Your task to perform on an android device: Open Google Chrome and open the bookmarks view Image 0: 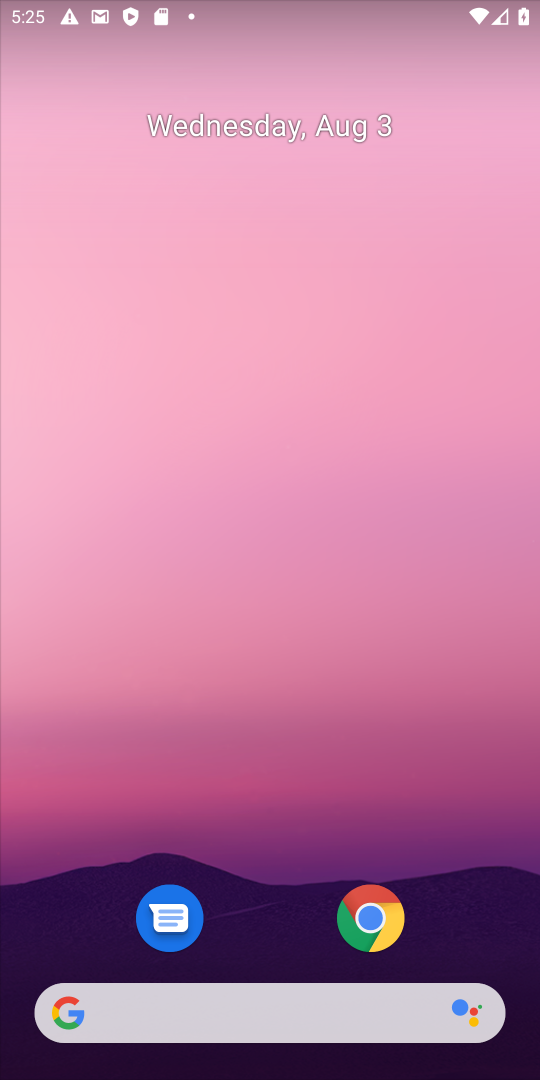
Step 0: click (367, 920)
Your task to perform on an android device: Open Google Chrome and open the bookmarks view Image 1: 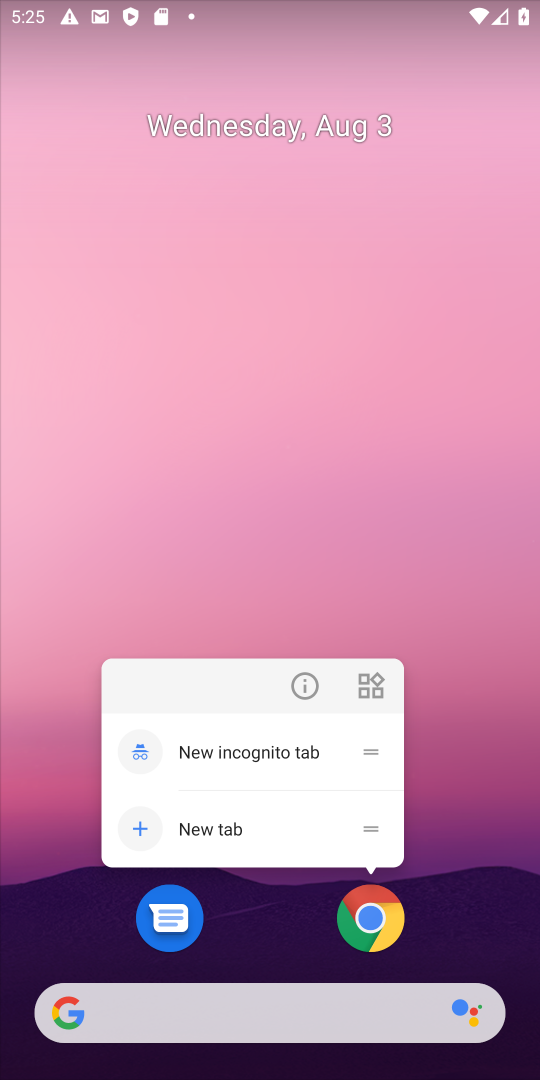
Step 1: click (367, 922)
Your task to perform on an android device: Open Google Chrome and open the bookmarks view Image 2: 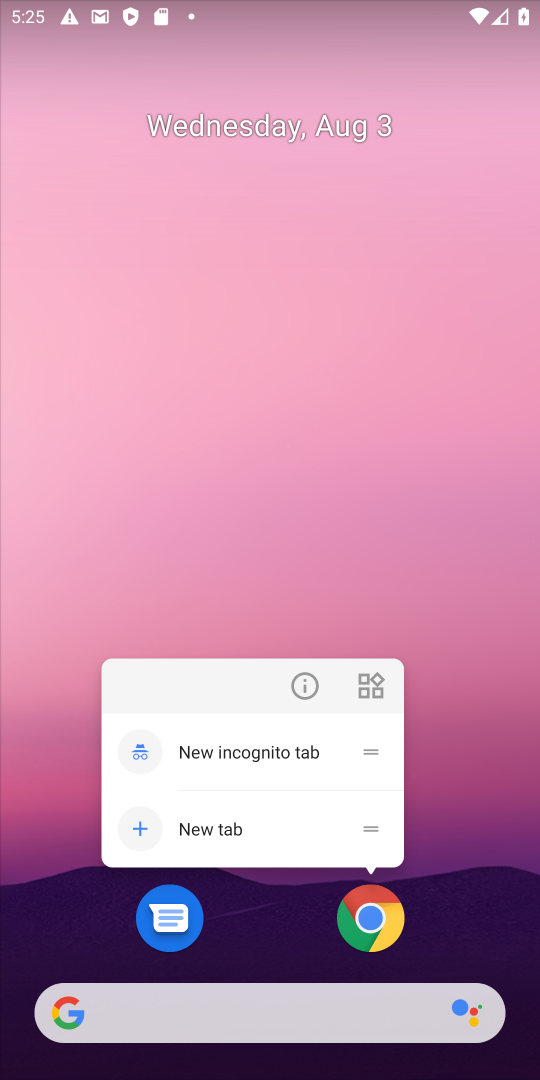
Step 2: click (367, 922)
Your task to perform on an android device: Open Google Chrome and open the bookmarks view Image 3: 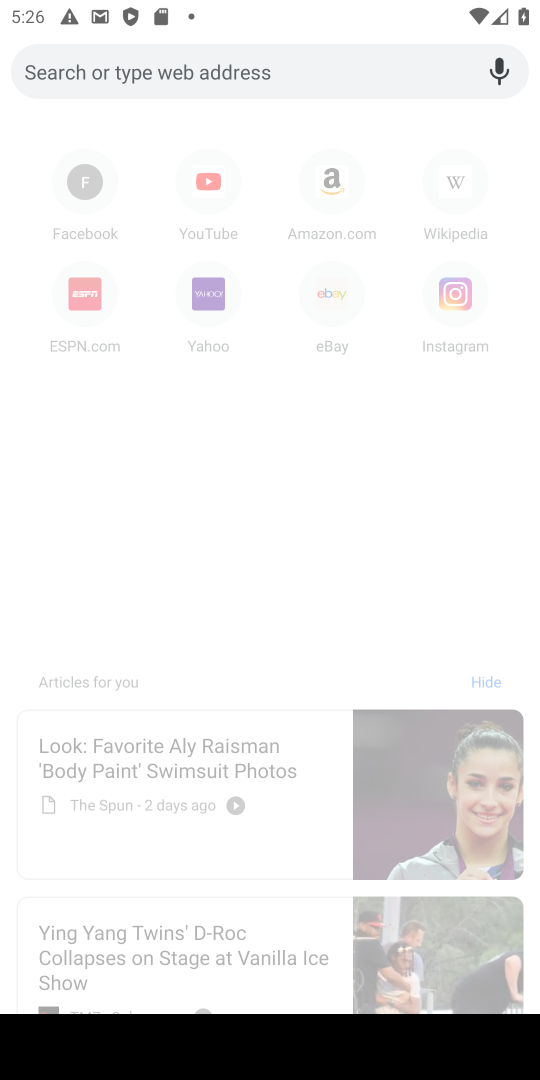
Step 3: press back button
Your task to perform on an android device: Open Google Chrome and open the bookmarks view Image 4: 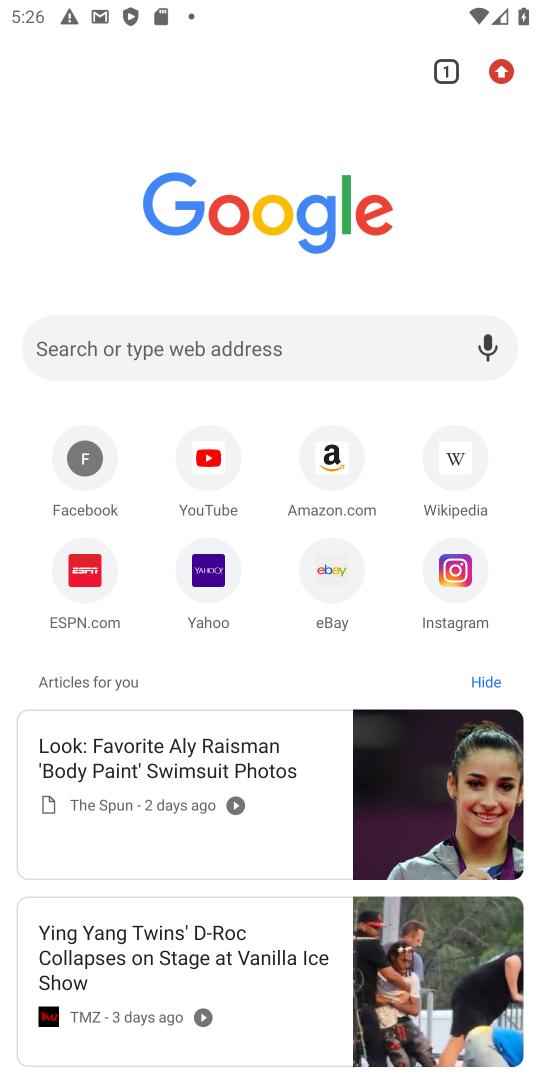
Step 4: drag from (499, 70) to (279, 353)
Your task to perform on an android device: Open Google Chrome and open the bookmarks view Image 5: 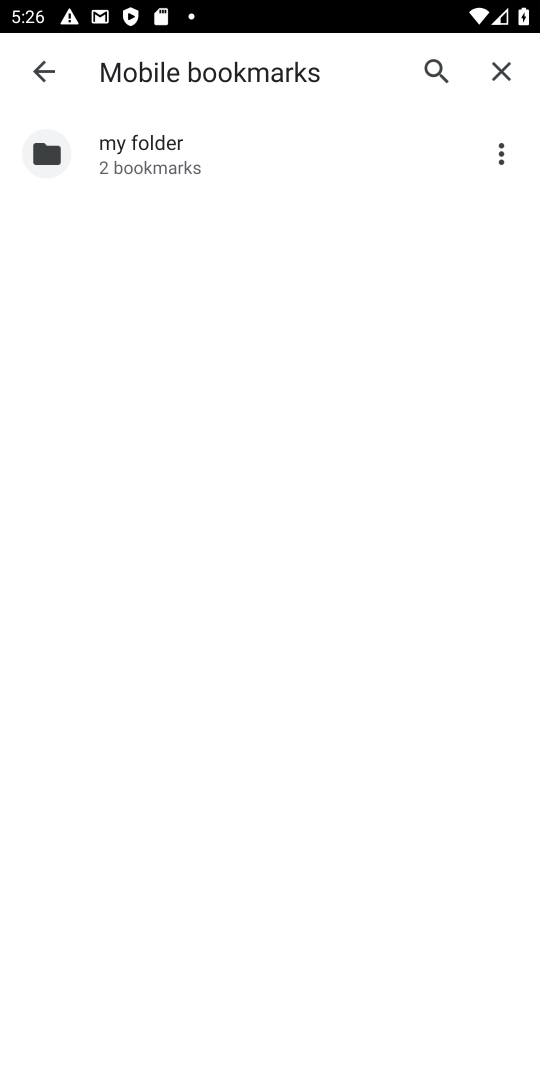
Step 5: click (117, 145)
Your task to perform on an android device: Open Google Chrome and open the bookmarks view Image 6: 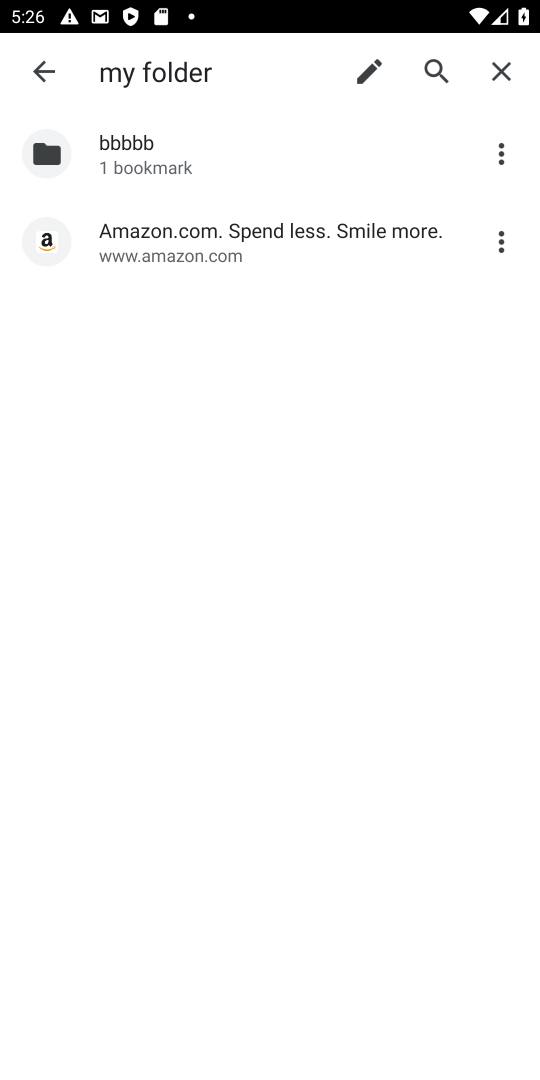
Step 6: click (167, 231)
Your task to perform on an android device: Open Google Chrome and open the bookmarks view Image 7: 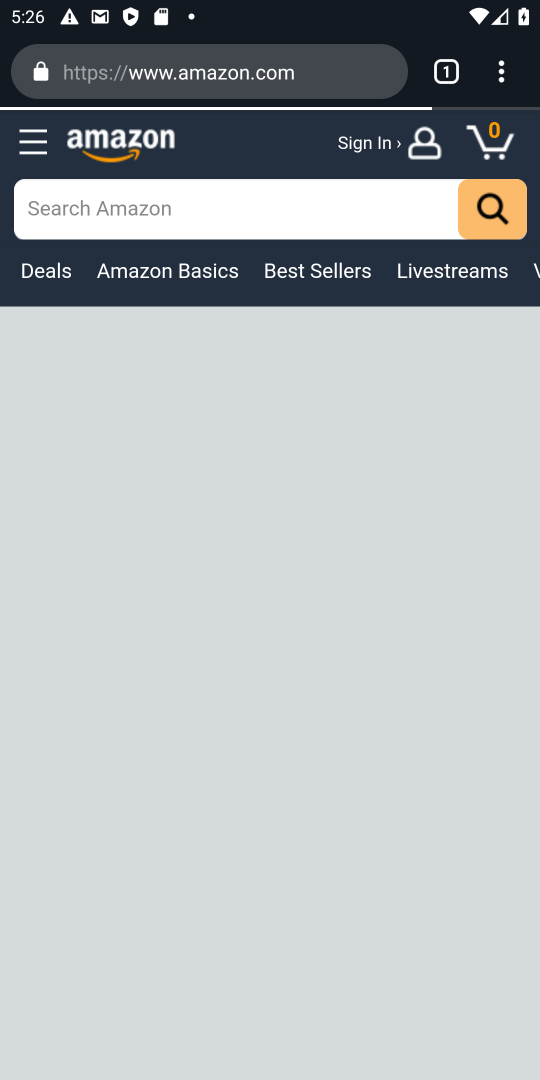
Step 7: task complete